Your task to perform on an android device: Open display settings Image 0: 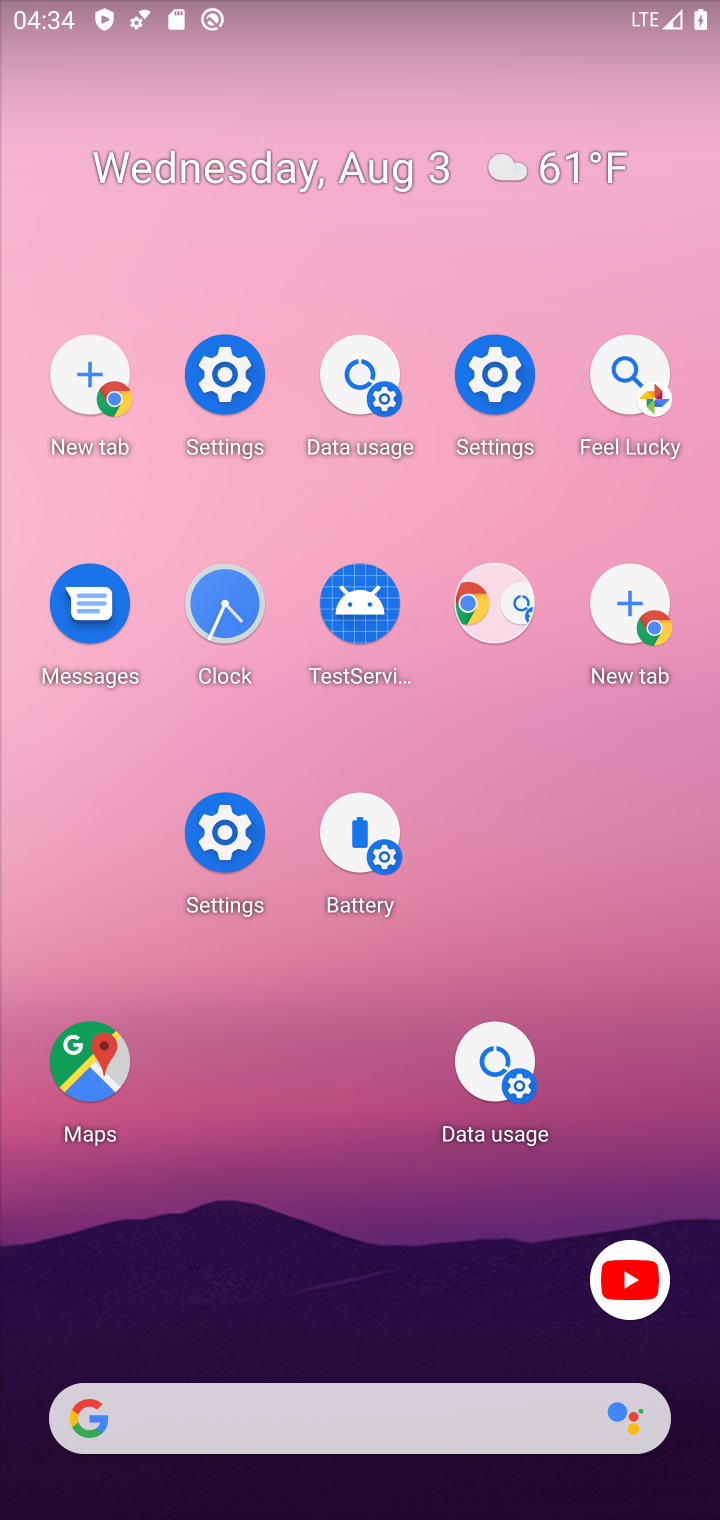
Step 0: click (238, 846)
Your task to perform on an android device: Open display settings Image 1: 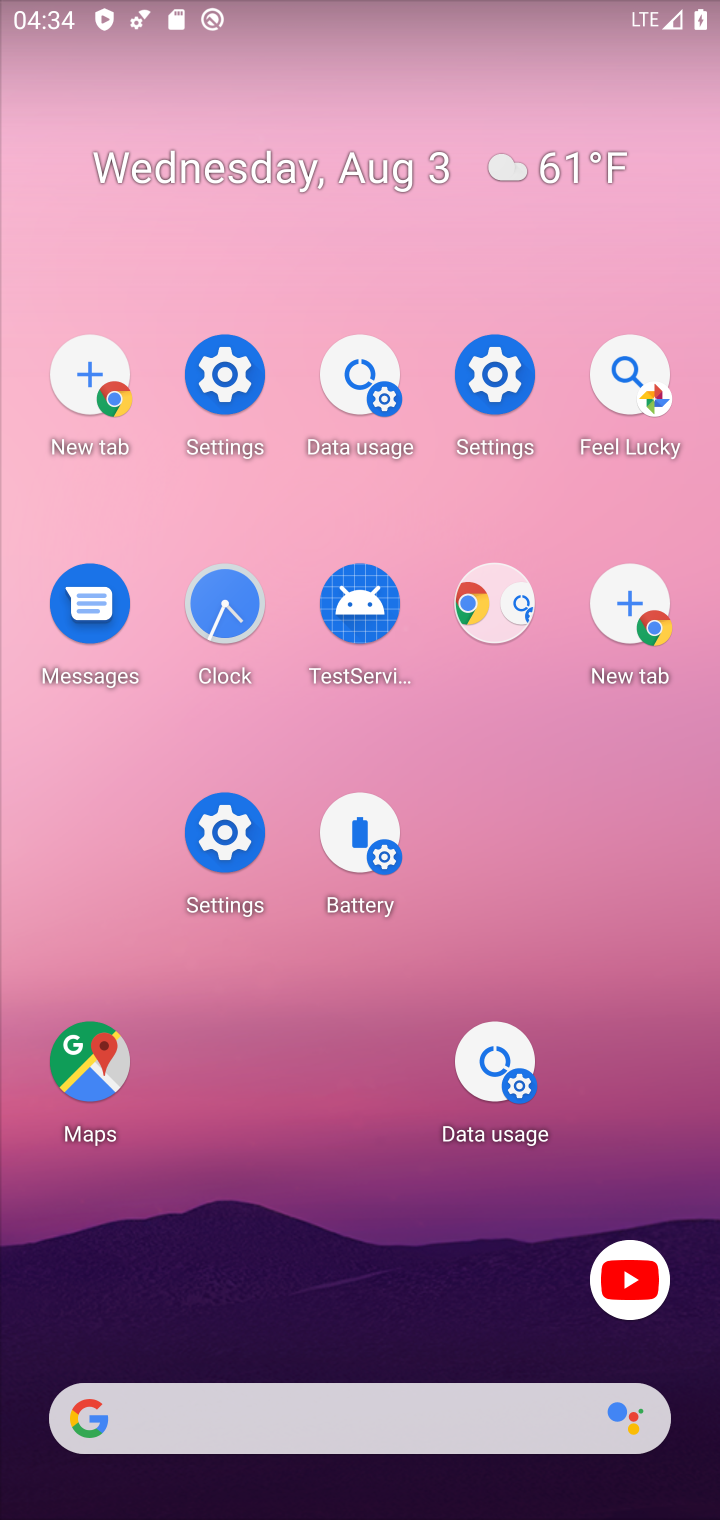
Step 1: click (256, 855)
Your task to perform on an android device: Open display settings Image 2: 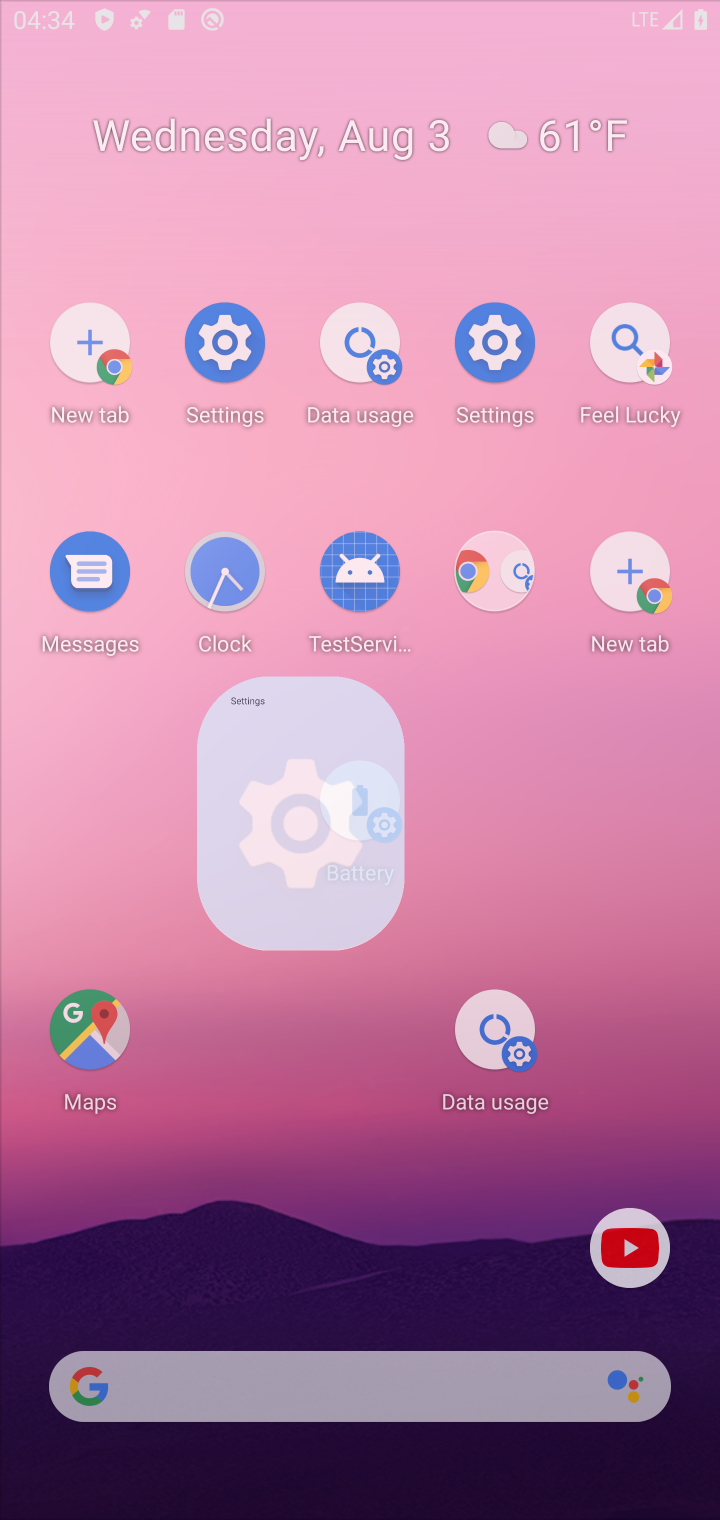
Step 2: click (235, 844)
Your task to perform on an android device: Open display settings Image 3: 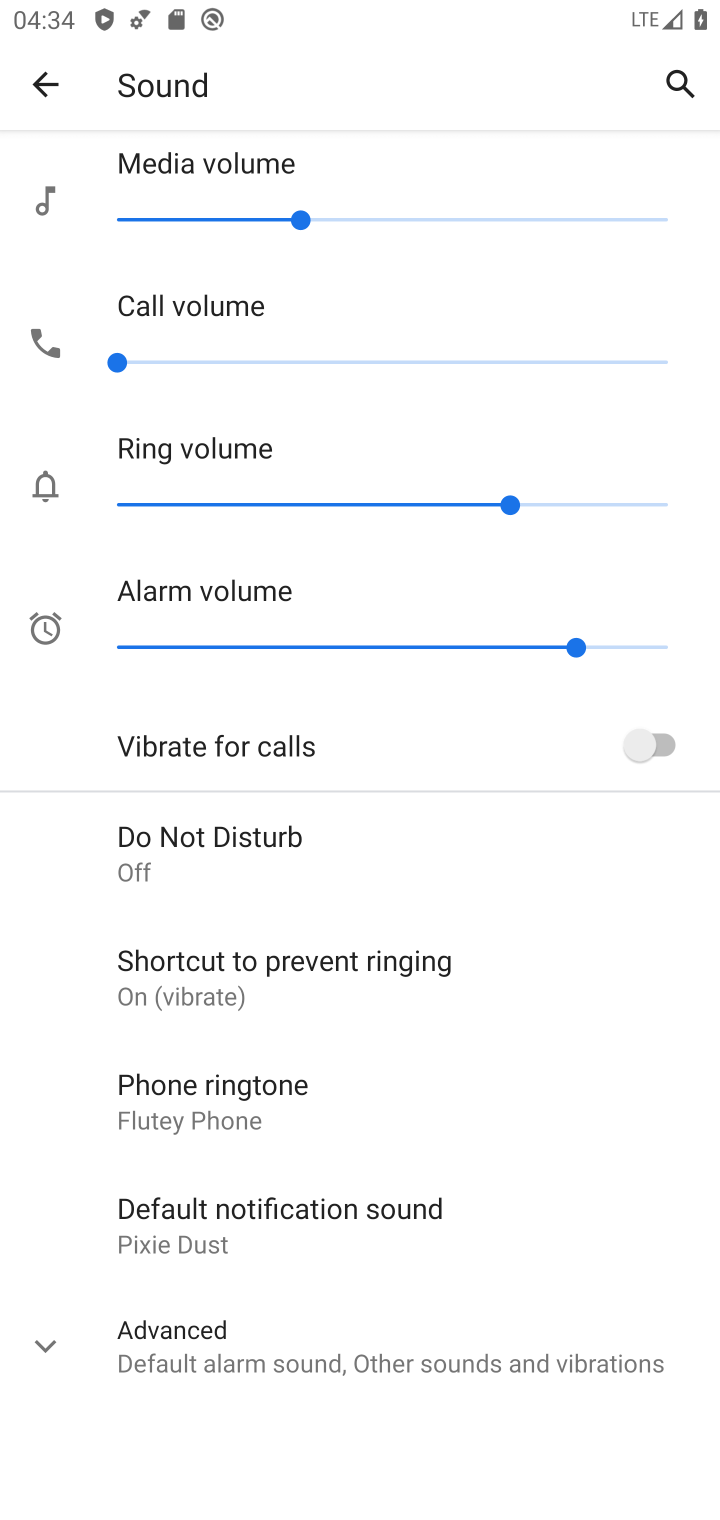
Step 3: click (43, 96)
Your task to perform on an android device: Open display settings Image 4: 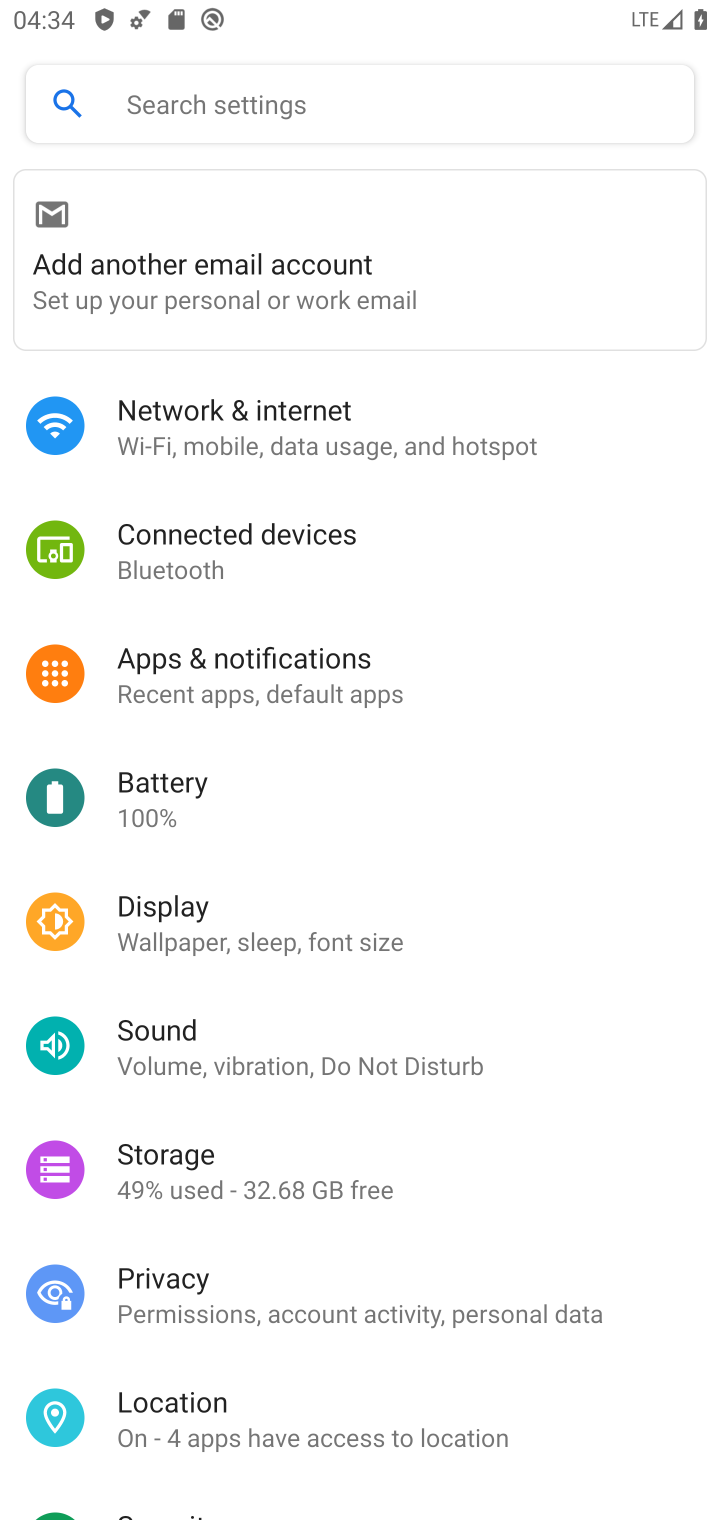
Step 4: click (166, 916)
Your task to perform on an android device: Open display settings Image 5: 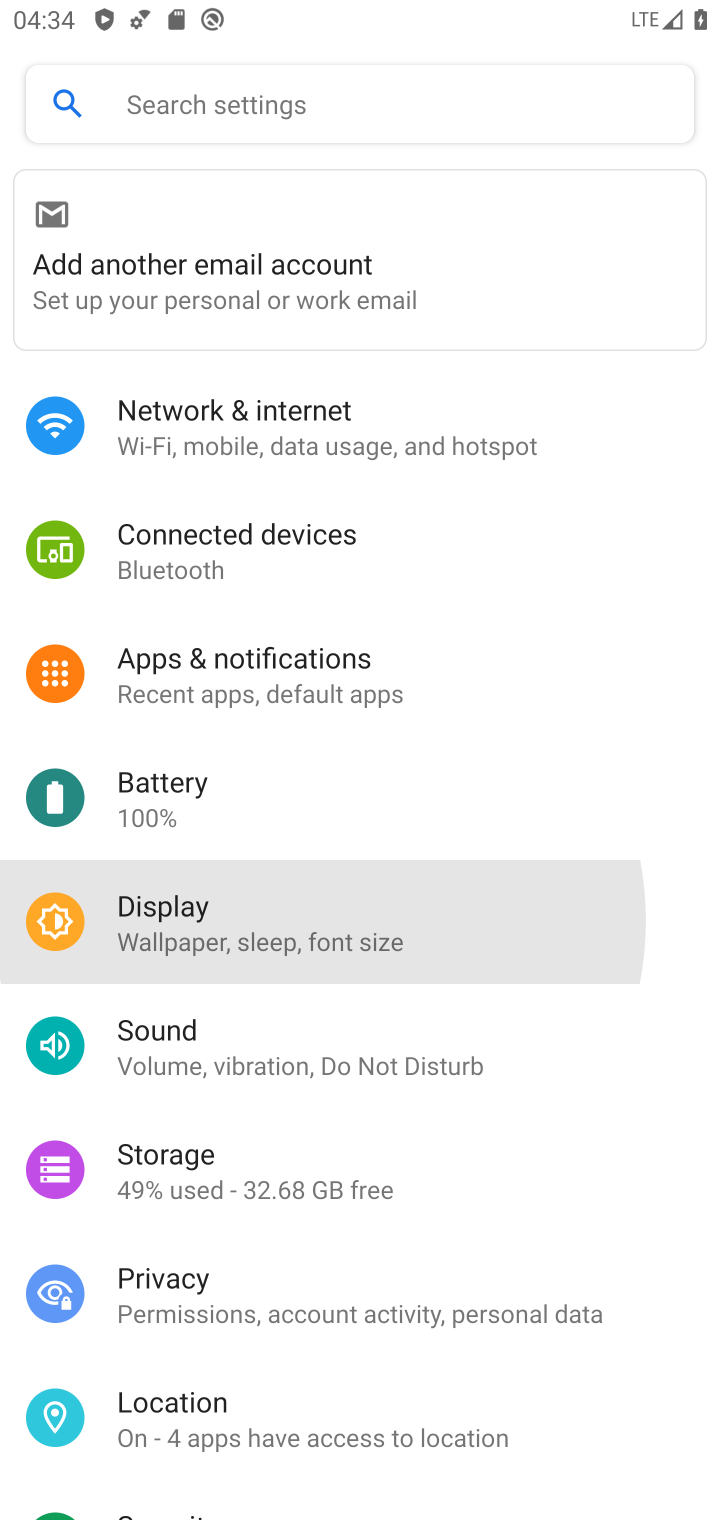
Step 5: click (170, 914)
Your task to perform on an android device: Open display settings Image 6: 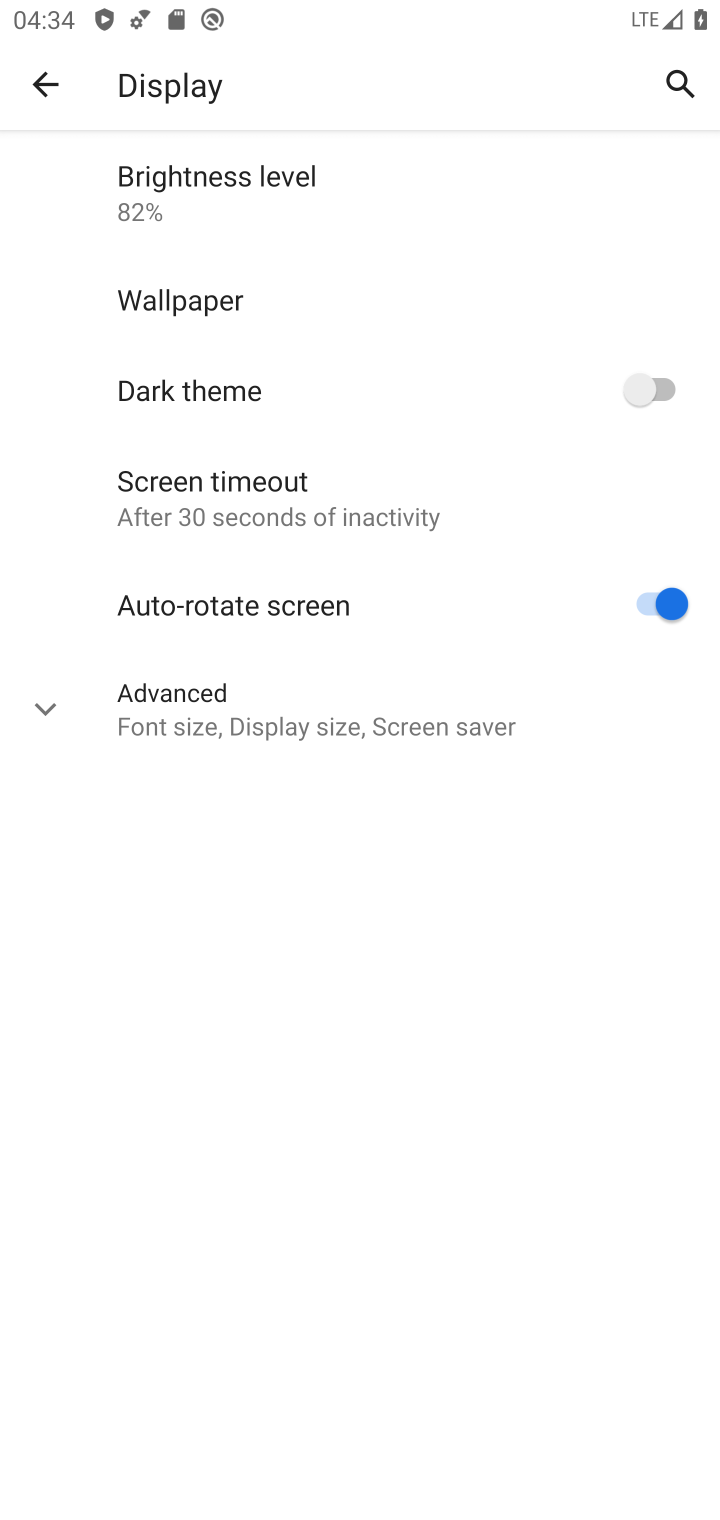
Step 6: task complete